Your task to perform on an android device: Go to Wikipedia Image 0: 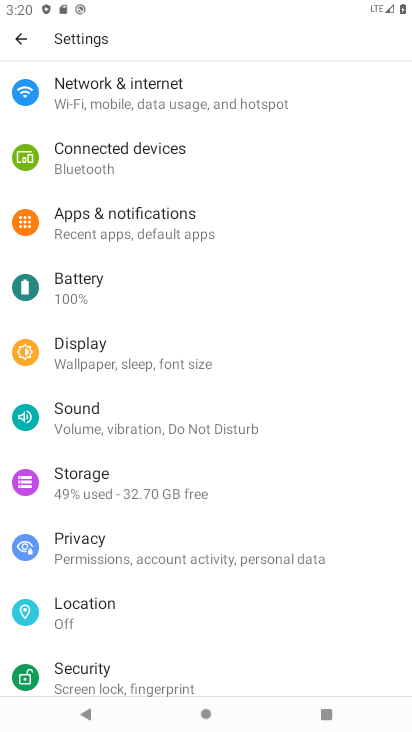
Step 0: press home button
Your task to perform on an android device: Go to Wikipedia Image 1: 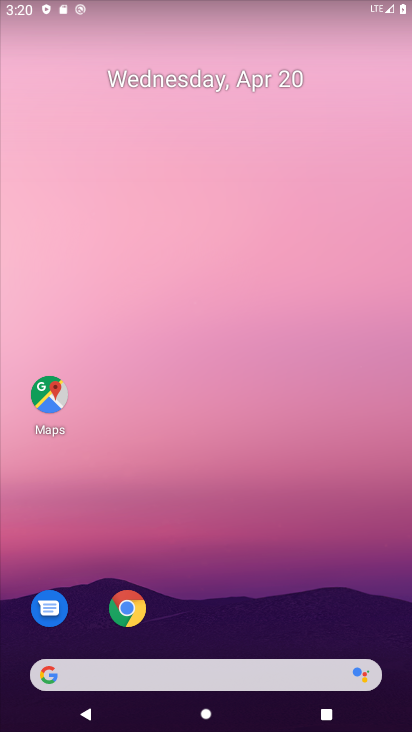
Step 1: click (138, 617)
Your task to perform on an android device: Go to Wikipedia Image 2: 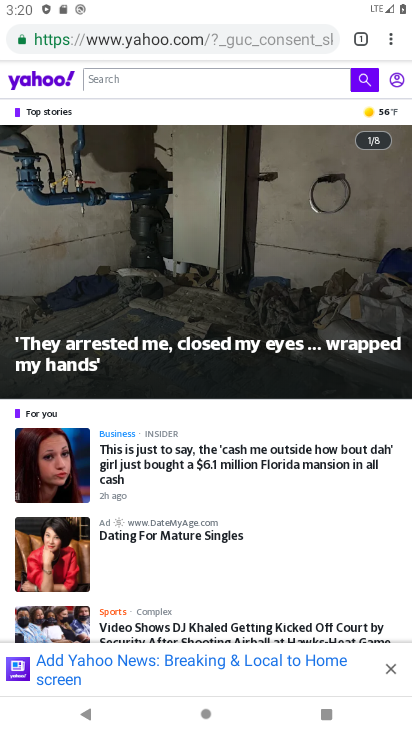
Step 2: click (352, 41)
Your task to perform on an android device: Go to Wikipedia Image 3: 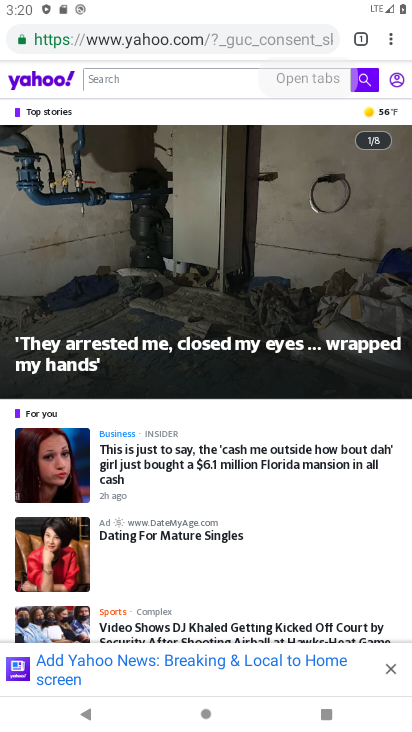
Step 3: click (355, 37)
Your task to perform on an android device: Go to Wikipedia Image 4: 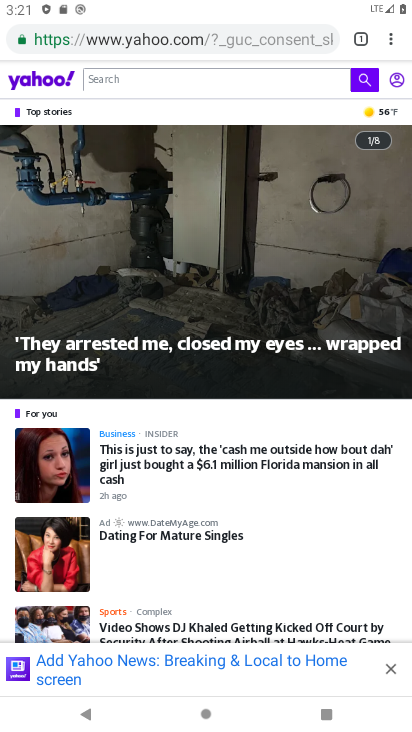
Step 4: click (351, 43)
Your task to perform on an android device: Go to Wikipedia Image 5: 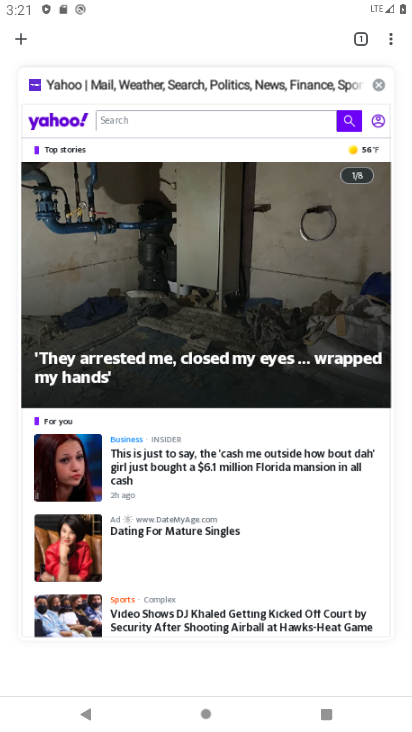
Step 5: click (16, 31)
Your task to perform on an android device: Go to Wikipedia Image 6: 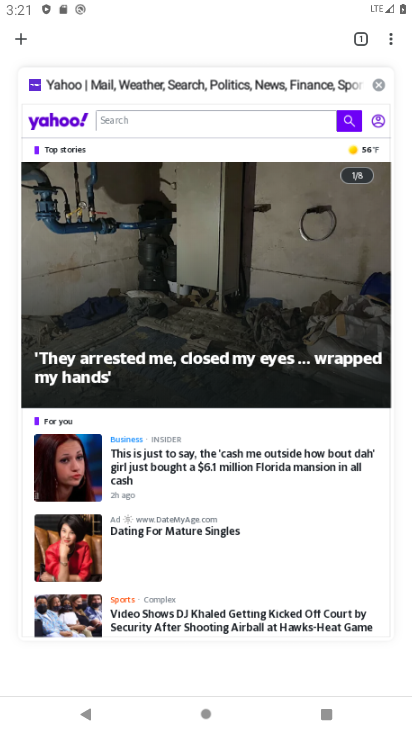
Step 6: click (17, 22)
Your task to perform on an android device: Go to Wikipedia Image 7: 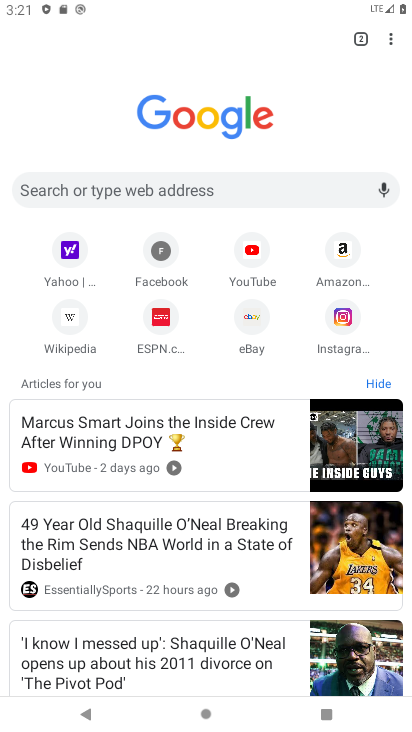
Step 7: click (75, 313)
Your task to perform on an android device: Go to Wikipedia Image 8: 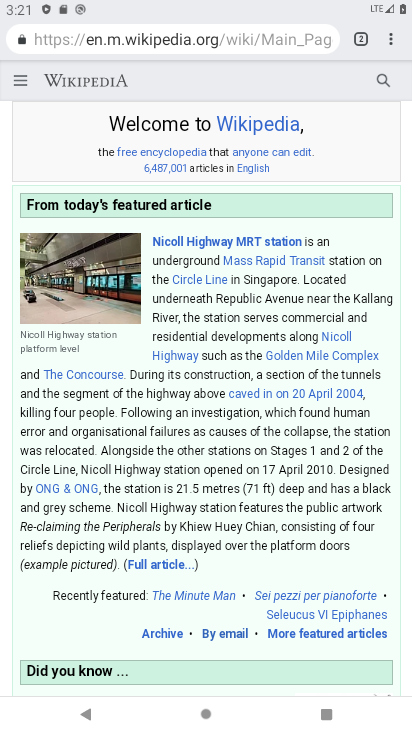
Step 8: task complete